Your task to perform on an android device: open sync settings in chrome Image 0: 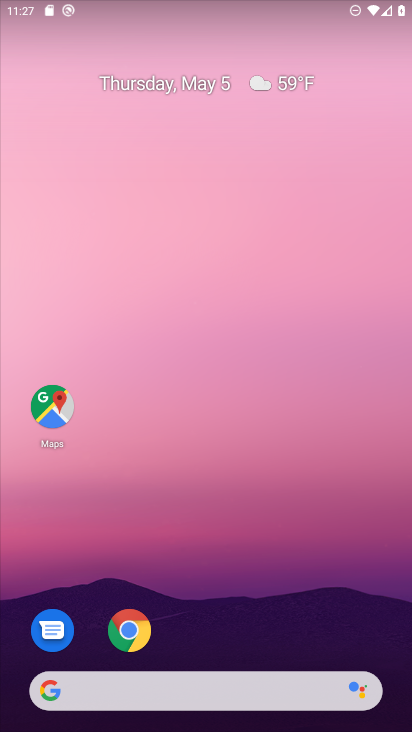
Step 0: click (138, 624)
Your task to perform on an android device: open sync settings in chrome Image 1: 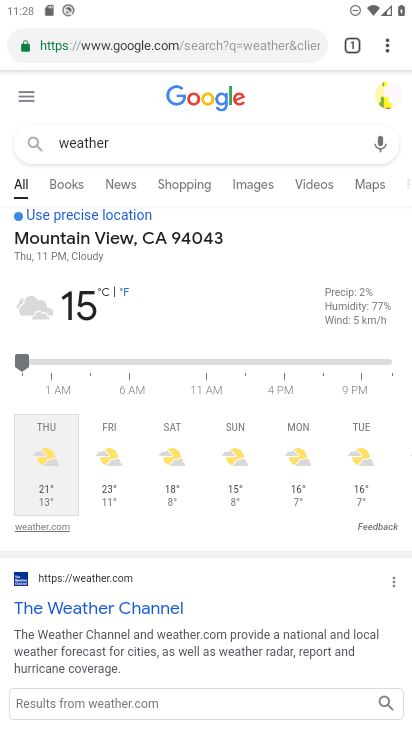
Step 1: click (386, 47)
Your task to perform on an android device: open sync settings in chrome Image 2: 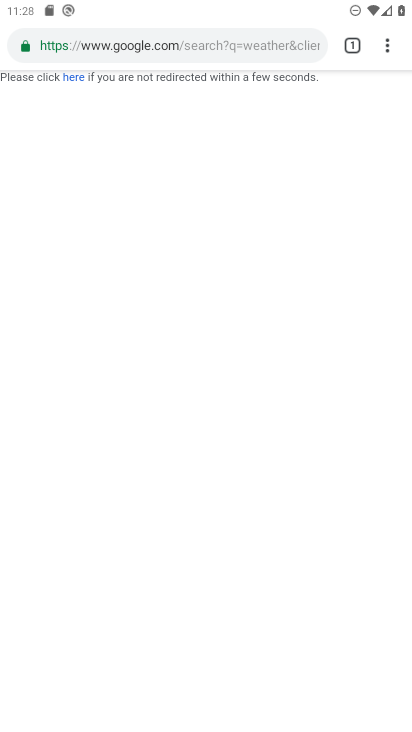
Step 2: drag from (389, 47) to (228, 570)
Your task to perform on an android device: open sync settings in chrome Image 3: 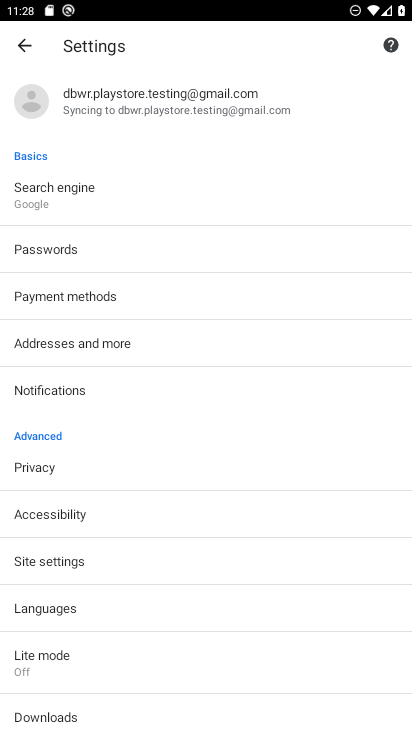
Step 3: click (151, 92)
Your task to perform on an android device: open sync settings in chrome Image 4: 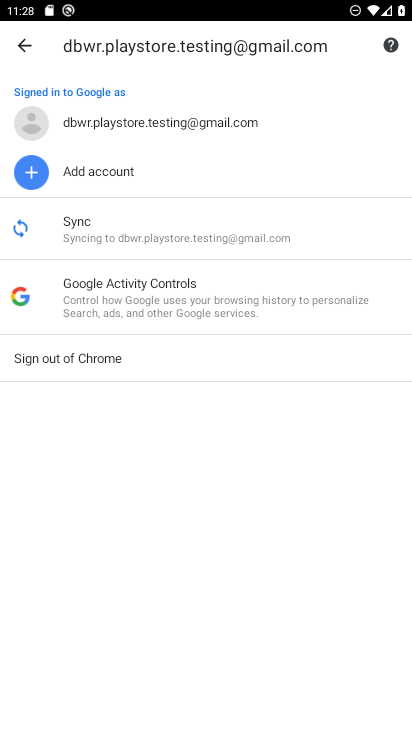
Step 4: click (136, 231)
Your task to perform on an android device: open sync settings in chrome Image 5: 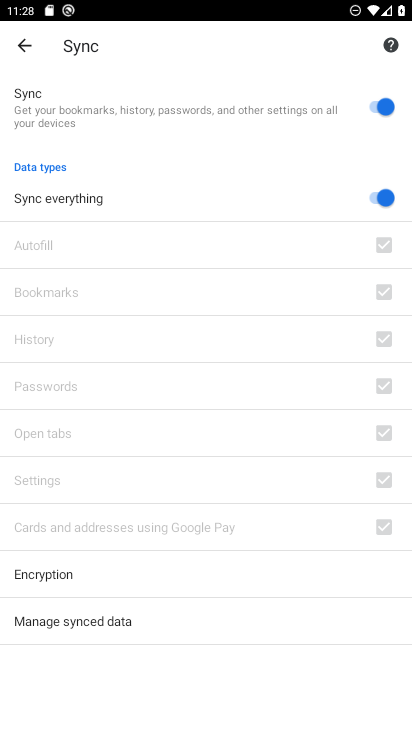
Step 5: task complete